Your task to perform on an android device: open the mobile data screen to see how much data has been used Image 0: 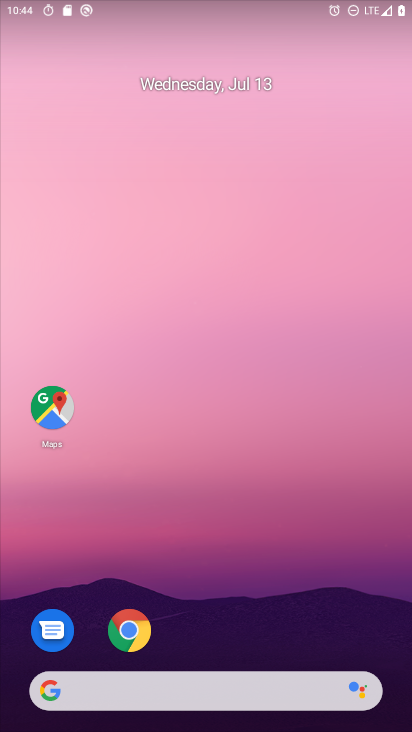
Step 0: drag from (355, 631) to (288, 19)
Your task to perform on an android device: open the mobile data screen to see how much data has been used Image 1: 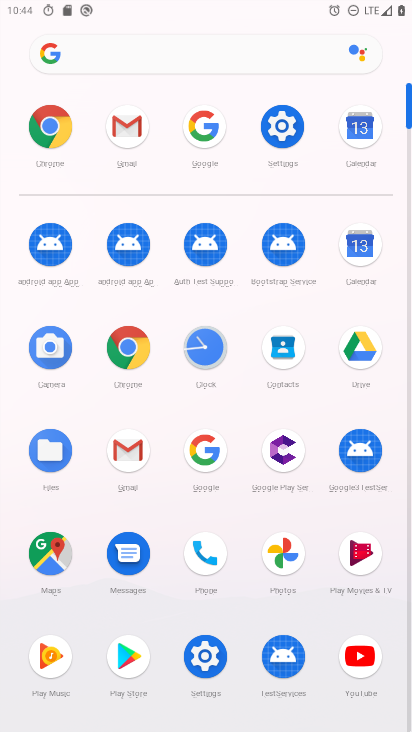
Step 1: click (280, 138)
Your task to perform on an android device: open the mobile data screen to see how much data has been used Image 2: 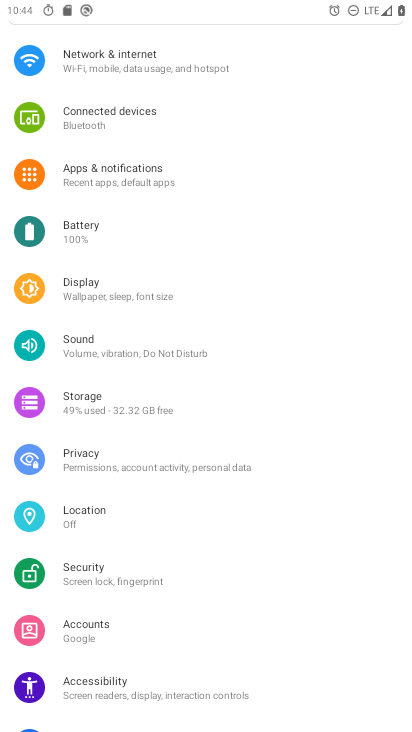
Step 2: click (146, 68)
Your task to perform on an android device: open the mobile data screen to see how much data has been used Image 3: 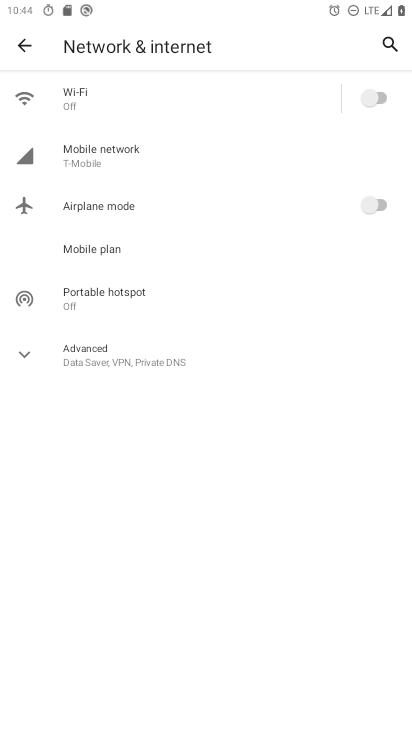
Step 3: click (118, 154)
Your task to perform on an android device: open the mobile data screen to see how much data has been used Image 4: 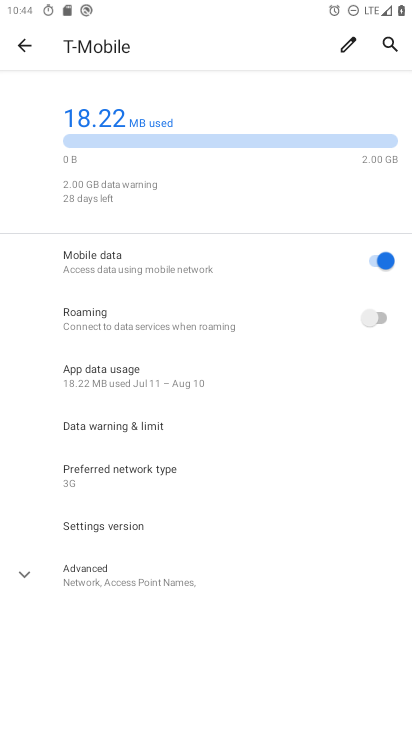
Step 4: click (96, 364)
Your task to perform on an android device: open the mobile data screen to see how much data has been used Image 5: 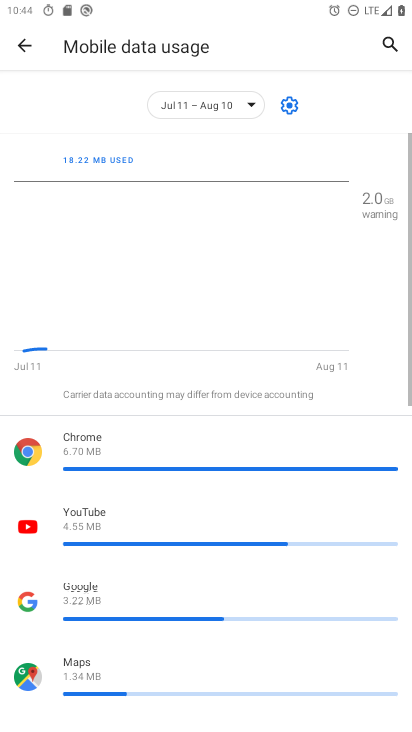
Step 5: task complete